Your task to perform on an android device: Open internet settings Image 0: 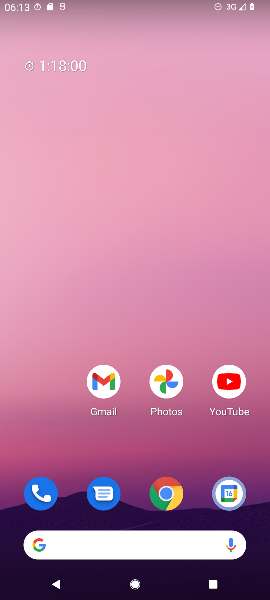
Step 0: drag from (60, 432) to (53, 96)
Your task to perform on an android device: Open internet settings Image 1: 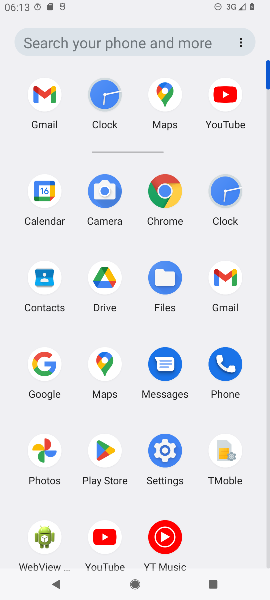
Step 1: click (170, 450)
Your task to perform on an android device: Open internet settings Image 2: 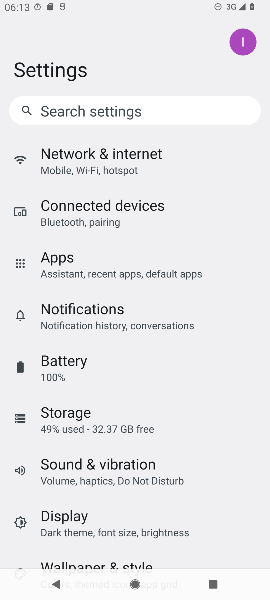
Step 2: click (156, 151)
Your task to perform on an android device: Open internet settings Image 3: 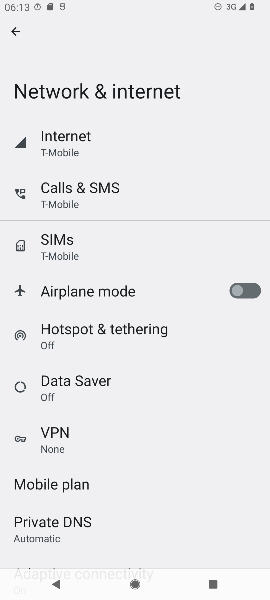
Step 3: task complete